Your task to perform on an android device: turn off location history Image 0: 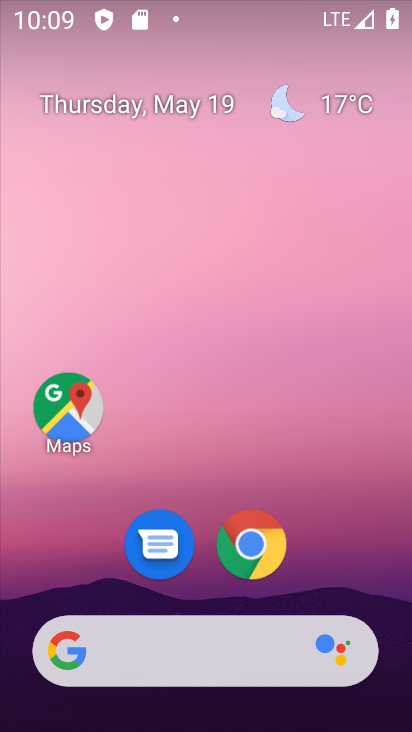
Step 0: drag from (157, 402) to (193, 11)
Your task to perform on an android device: turn off location history Image 1: 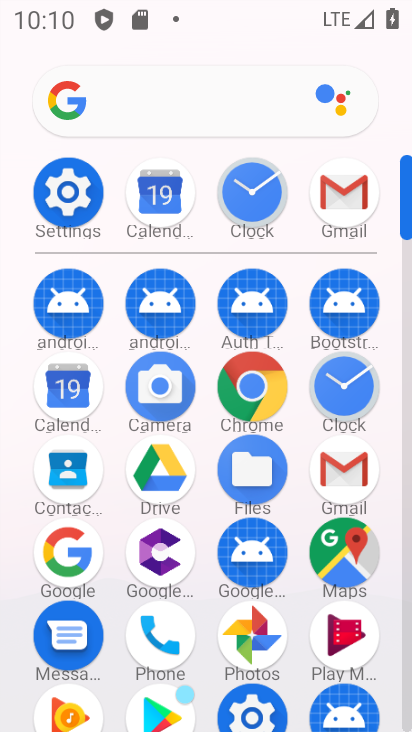
Step 1: click (62, 201)
Your task to perform on an android device: turn off location history Image 2: 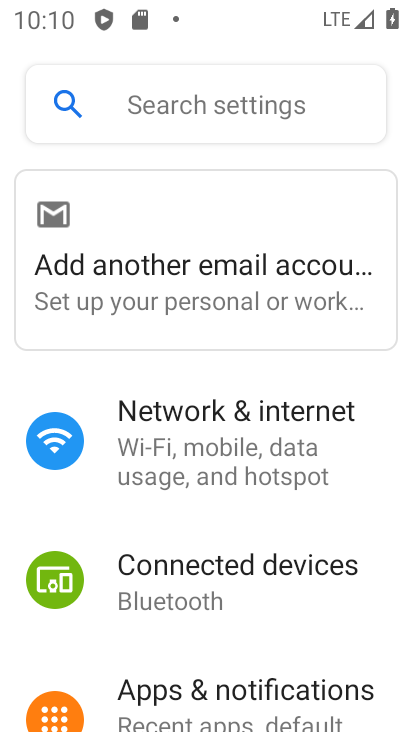
Step 2: drag from (221, 663) to (189, 213)
Your task to perform on an android device: turn off location history Image 3: 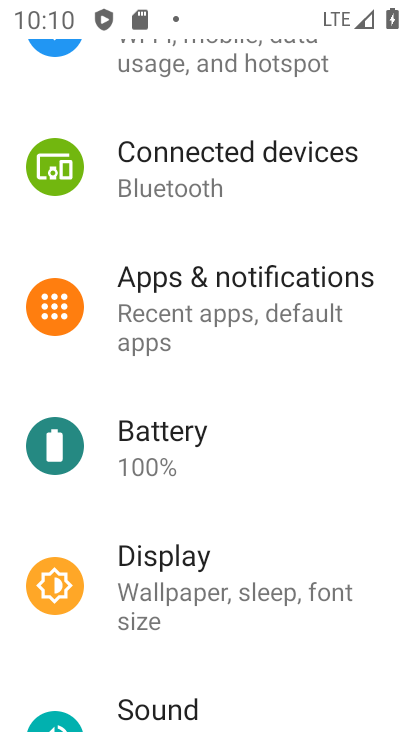
Step 3: drag from (214, 559) to (176, 23)
Your task to perform on an android device: turn off location history Image 4: 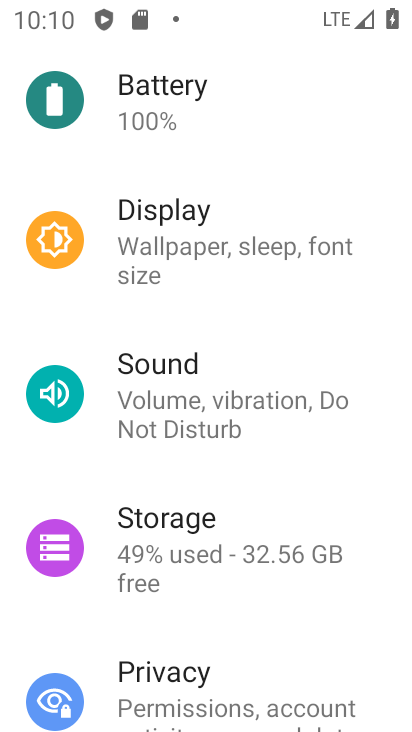
Step 4: drag from (246, 623) to (300, 185)
Your task to perform on an android device: turn off location history Image 5: 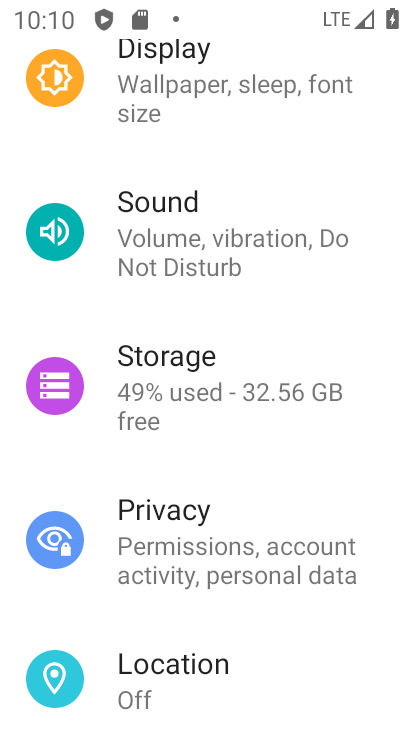
Step 5: click (226, 689)
Your task to perform on an android device: turn off location history Image 6: 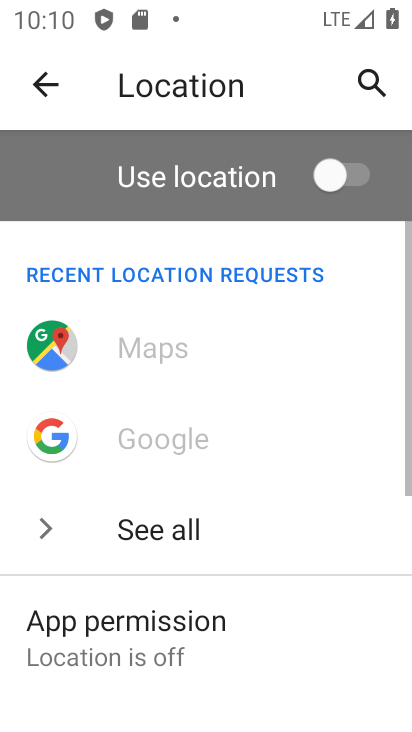
Step 6: task complete